Your task to perform on an android device: toggle priority inbox in the gmail app Image 0: 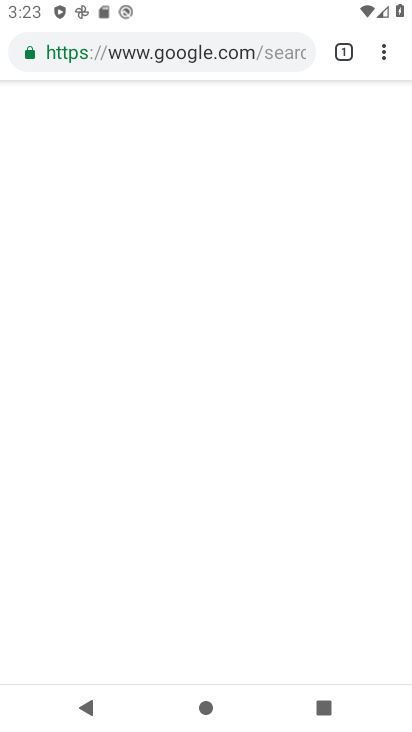
Step 0: press home button
Your task to perform on an android device: toggle priority inbox in the gmail app Image 1: 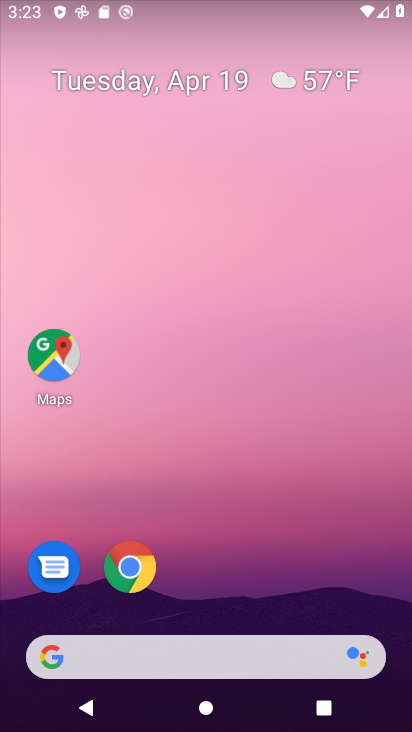
Step 1: drag from (336, 571) to (363, 158)
Your task to perform on an android device: toggle priority inbox in the gmail app Image 2: 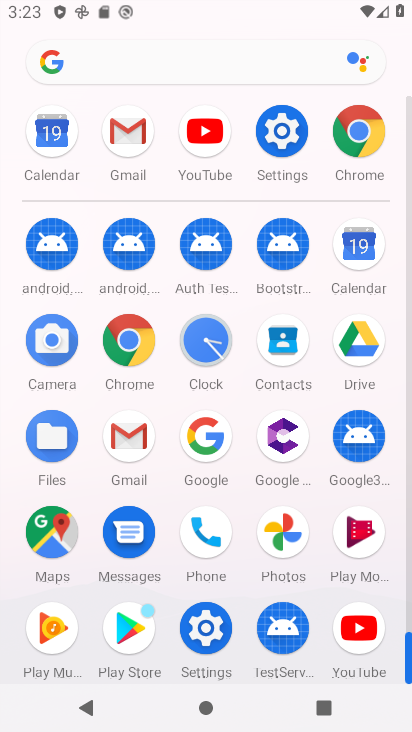
Step 2: click (122, 445)
Your task to perform on an android device: toggle priority inbox in the gmail app Image 3: 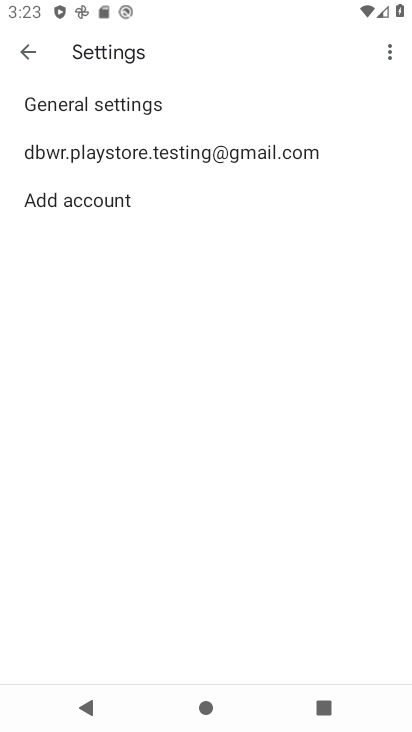
Step 3: click (195, 153)
Your task to perform on an android device: toggle priority inbox in the gmail app Image 4: 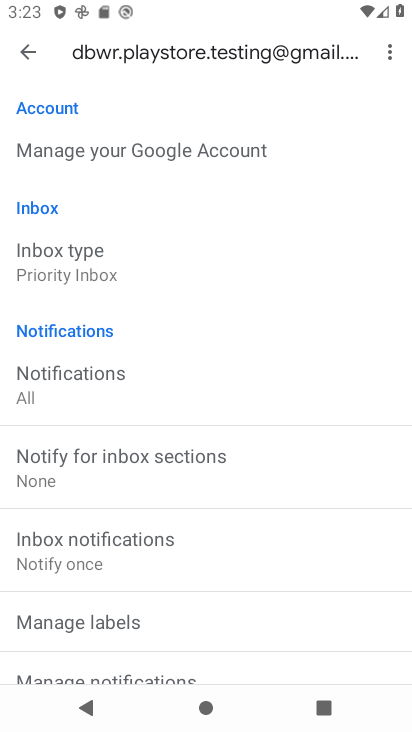
Step 4: drag from (337, 575) to (344, 355)
Your task to perform on an android device: toggle priority inbox in the gmail app Image 5: 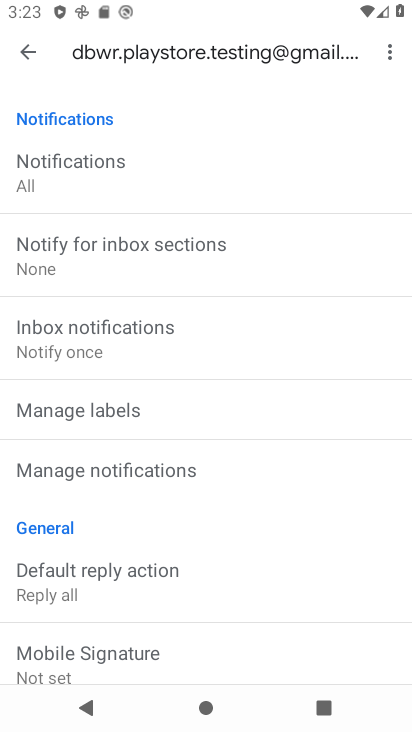
Step 5: drag from (309, 527) to (317, 294)
Your task to perform on an android device: toggle priority inbox in the gmail app Image 6: 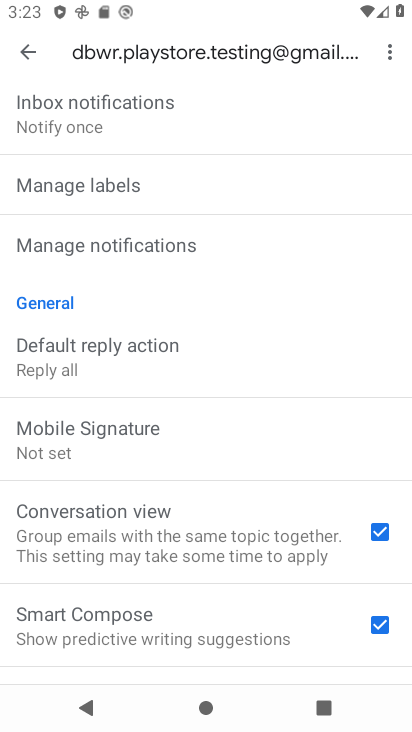
Step 6: drag from (310, 612) to (328, 322)
Your task to perform on an android device: toggle priority inbox in the gmail app Image 7: 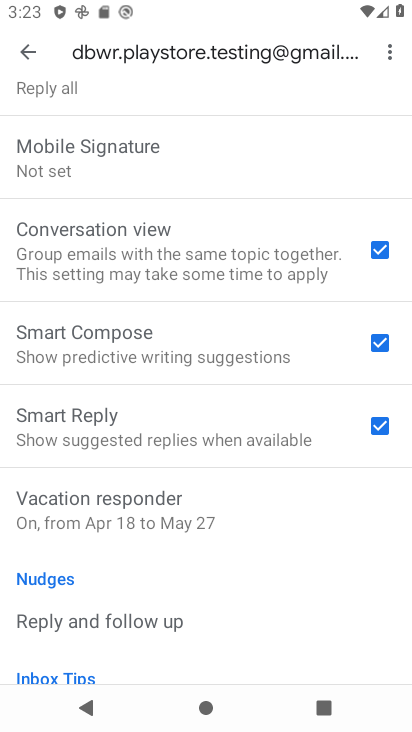
Step 7: drag from (299, 583) to (313, 295)
Your task to perform on an android device: toggle priority inbox in the gmail app Image 8: 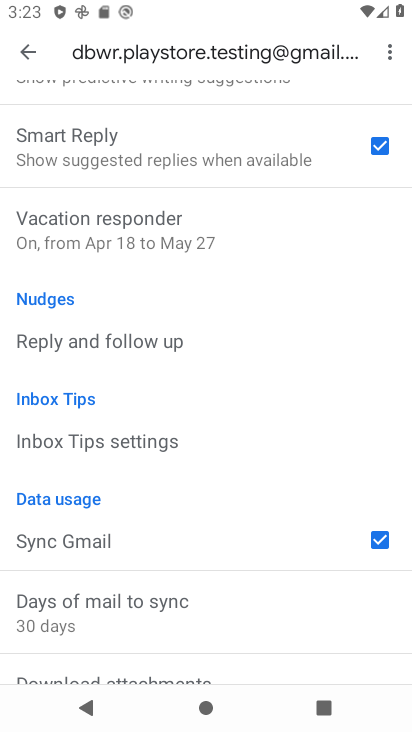
Step 8: drag from (300, 253) to (286, 507)
Your task to perform on an android device: toggle priority inbox in the gmail app Image 9: 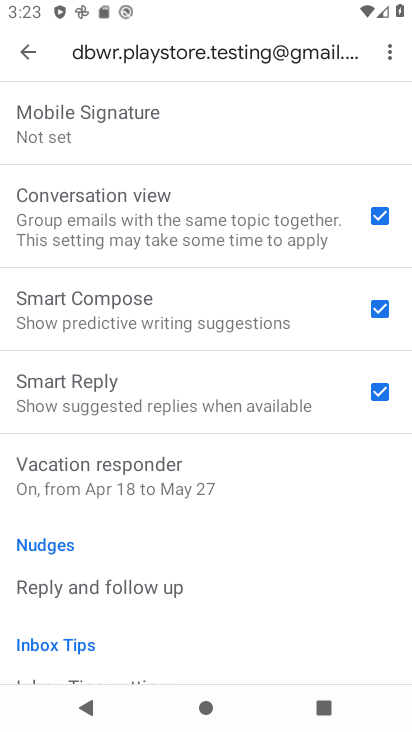
Step 9: drag from (301, 176) to (297, 492)
Your task to perform on an android device: toggle priority inbox in the gmail app Image 10: 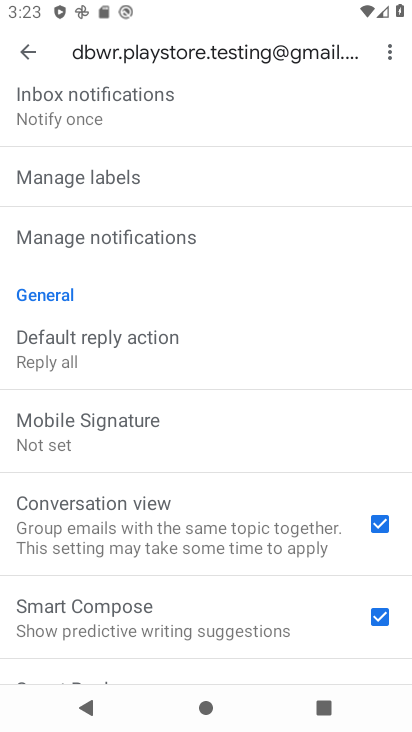
Step 10: drag from (300, 164) to (294, 422)
Your task to perform on an android device: toggle priority inbox in the gmail app Image 11: 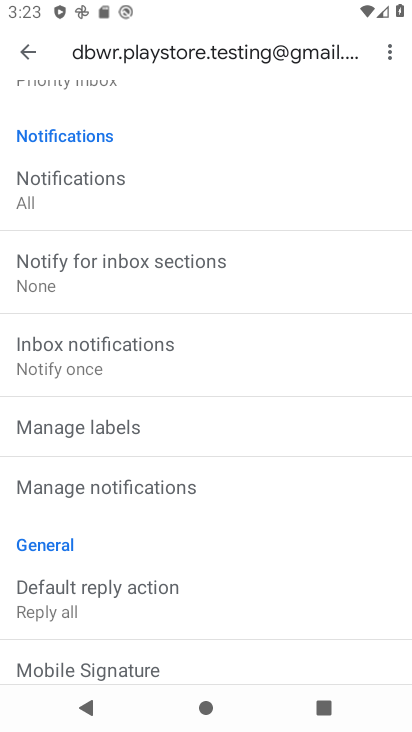
Step 11: drag from (302, 172) to (284, 364)
Your task to perform on an android device: toggle priority inbox in the gmail app Image 12: 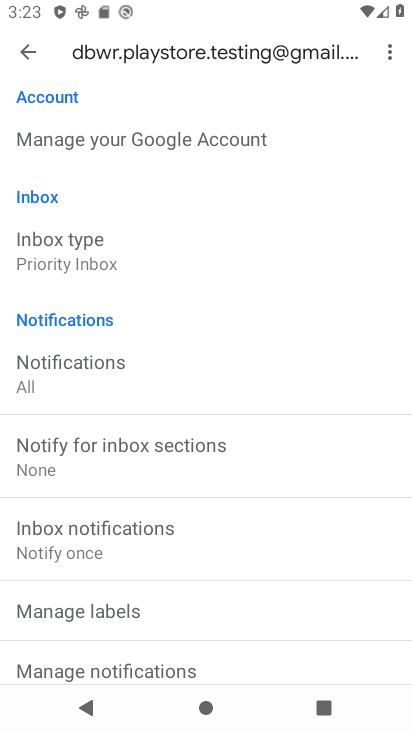
Step 12: click (77, 245)
Your task to perform on an android device: toggle priority inbox in the gmail app Image 13: 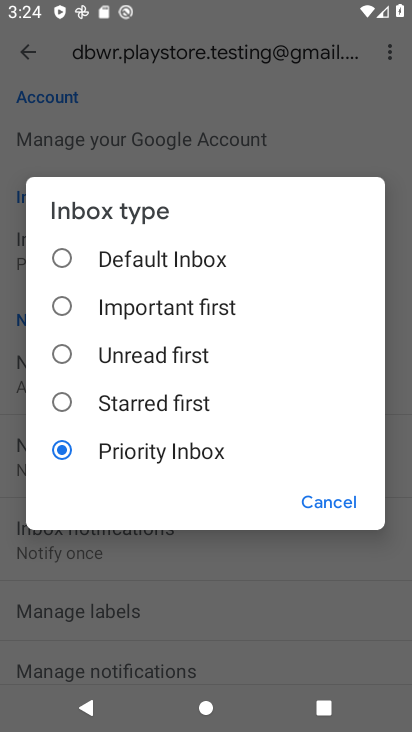
Step 13: task complete